Your task to perform on an android device: uninstall "Flipkart Online Shopping App" Image 0: 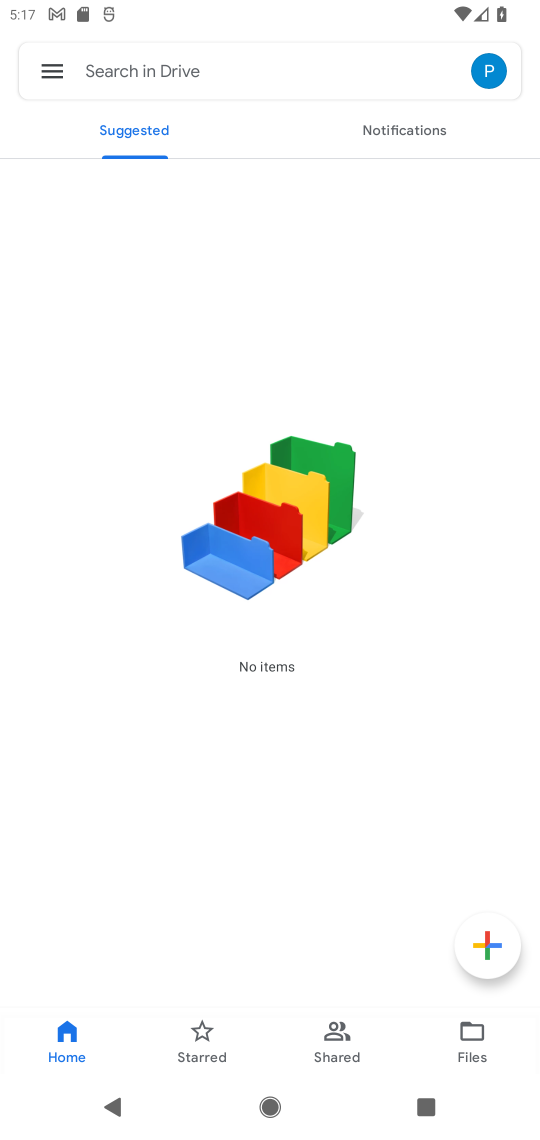
Step 0: press home button
Your task to perform on an android device: uninstall "Flipkart Online Shopping App" Image 1: 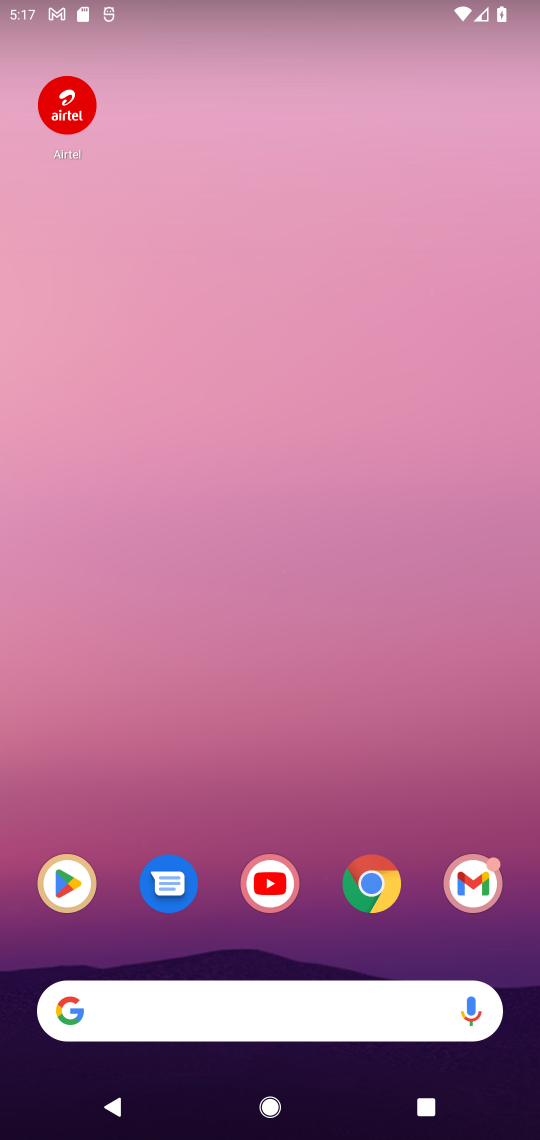
Step 1: click (275, 895)
Your task to perform on an android device: uninstall "Flipkart Online Shopping App" Image 2: 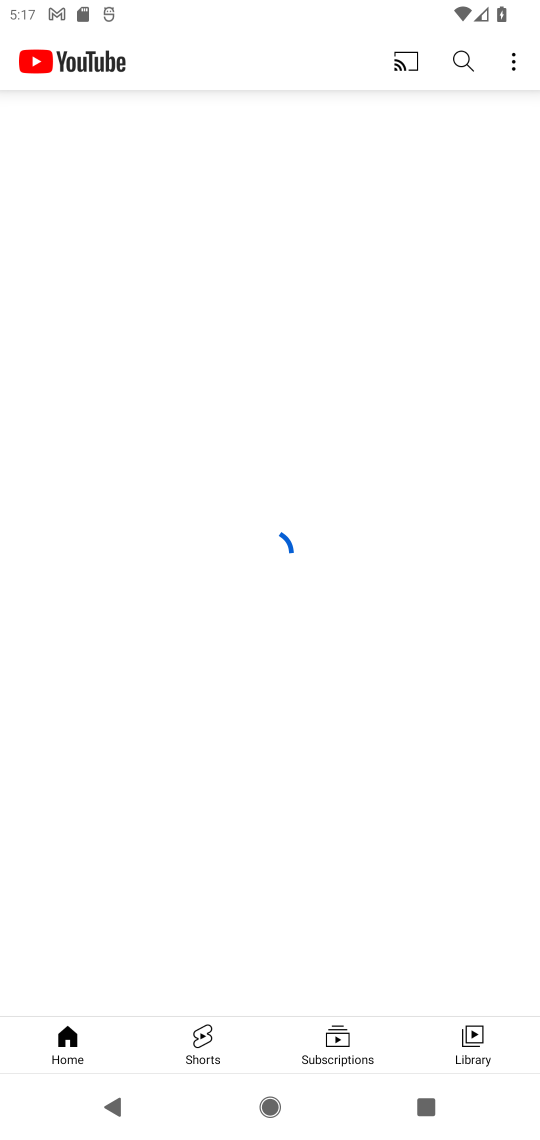
Step 2: press home button
Your task to perform on an android device: uninstall "Flipkart Online Shopping App" Image 3: 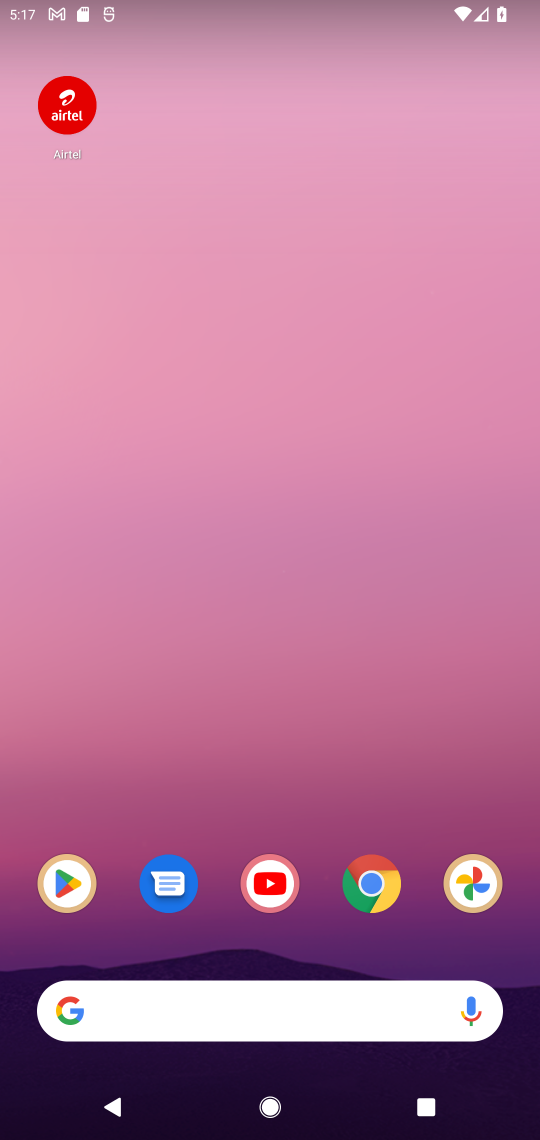
Step 3: click (58, 885)
Your task to perform on an android device: uninstall "Flipkart Online Shopping App" Image 4: 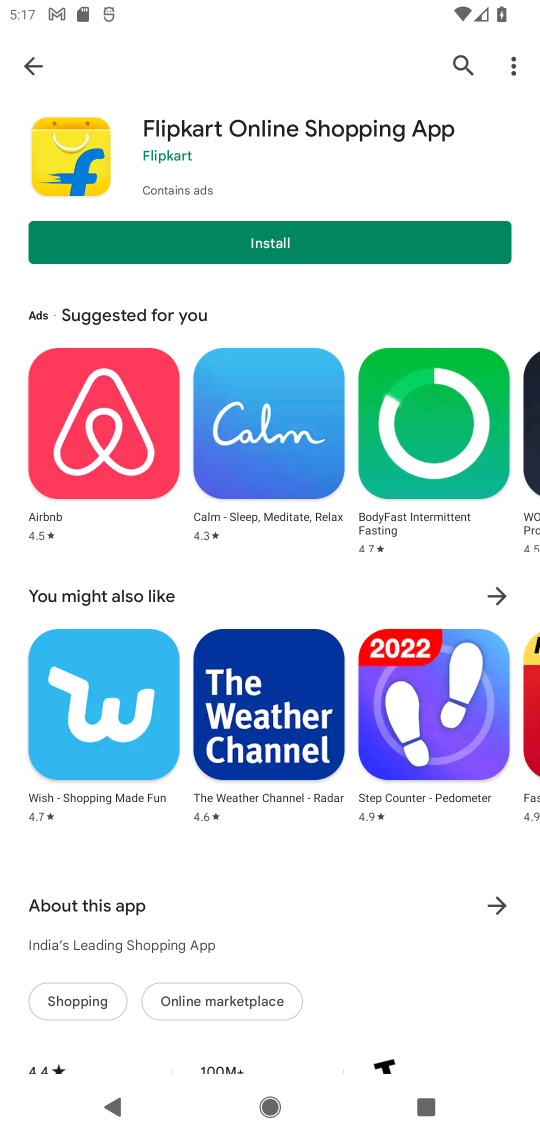
Step 4: click (32, 64)
Your task to perform on an android device: uninstall "Flipkart Online Shopping App" Image 5: 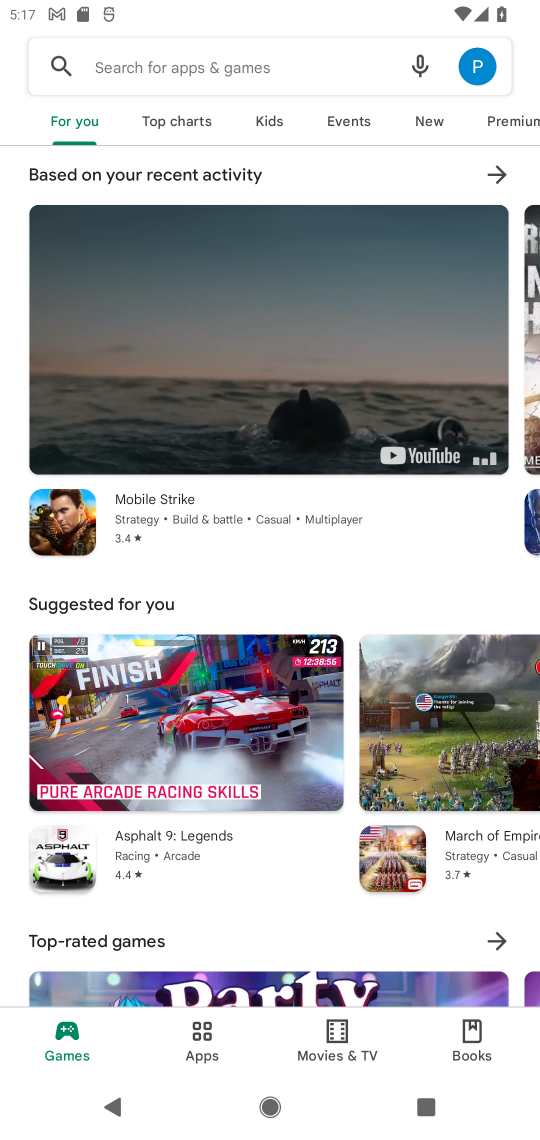
Step 5: click (168, 70)
Your task to perform on an android device: uninstall "Flipkart Online Shopping App" Image 6: 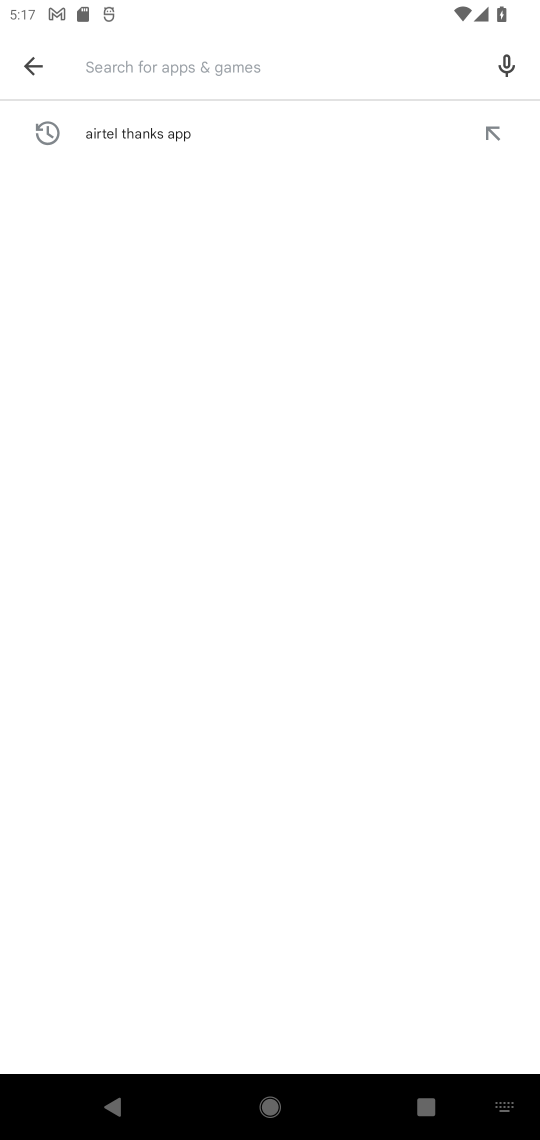
Step 6: type "Flipkart Online Shopping App"
Your task to perform on an android device: uninstall "Flipkart Online Shopping App" Image 7: 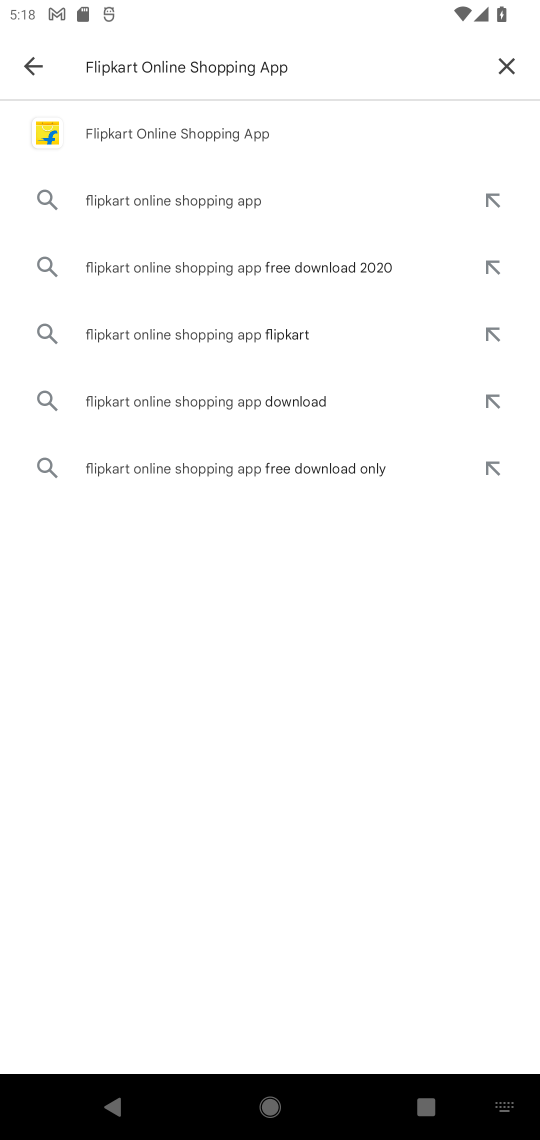
Step 7: click (211, 130)
Your task to perform on an android device: uninstall "Flipkart Online Shopping App" Image 8: 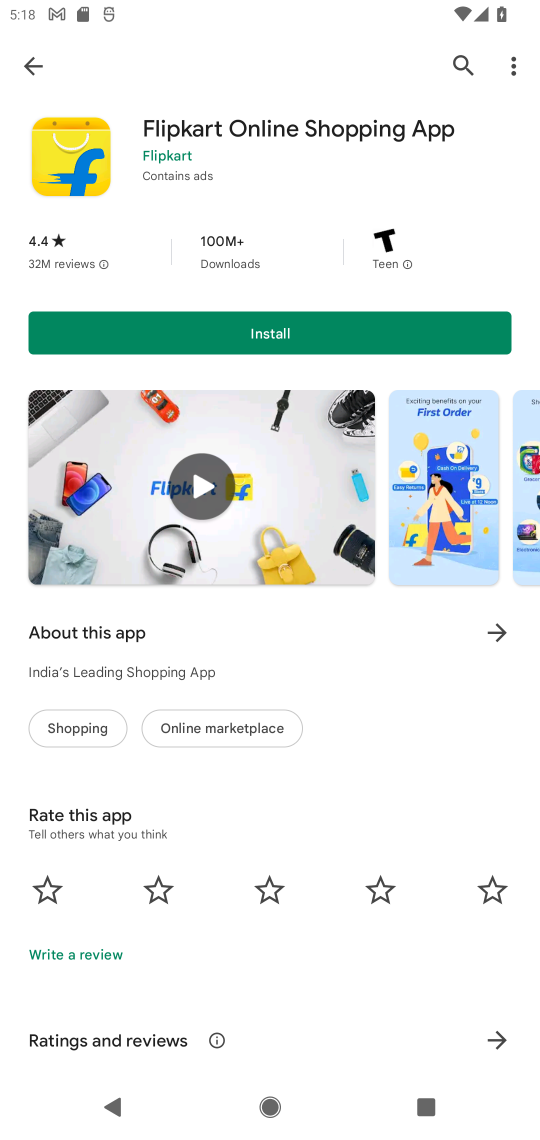
Step 8: task complete